Your task to perform on an android device: What's the weather today? Image 0: 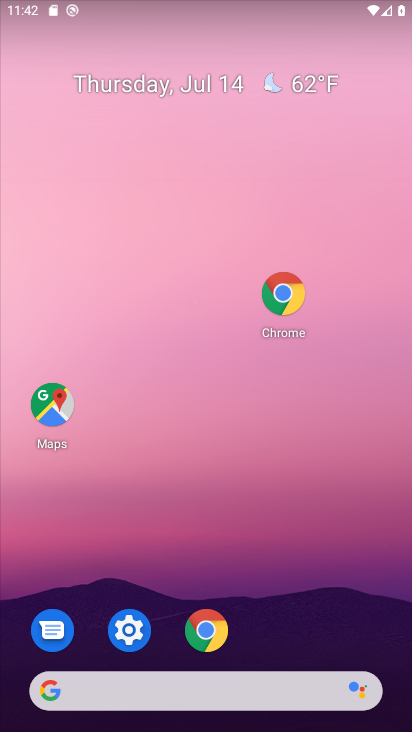
Step 0: drag from (269, 573) to (230, 142)
Your task to perform on an android device: What's the weather today? Image 1: 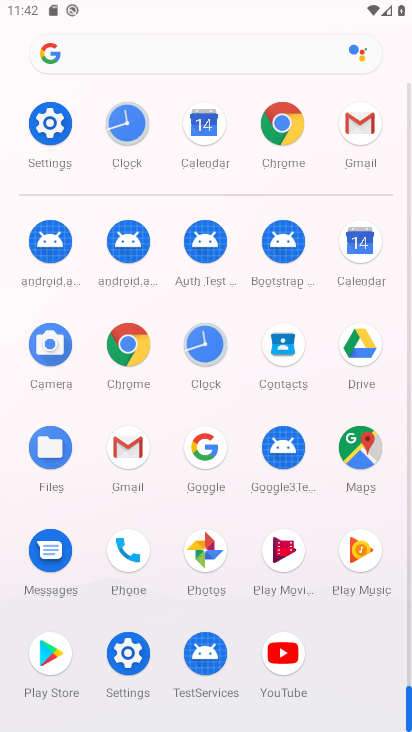
Step 1: click (282, 127)
Your task to perform on an android device: What's the weather today? Image 2: 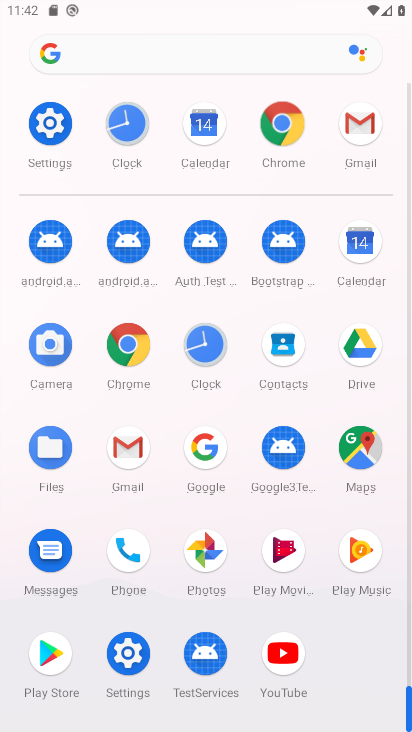
Step 2: click (281, 126)
Your task to perform on an android device: What's the weather today? Image 3: 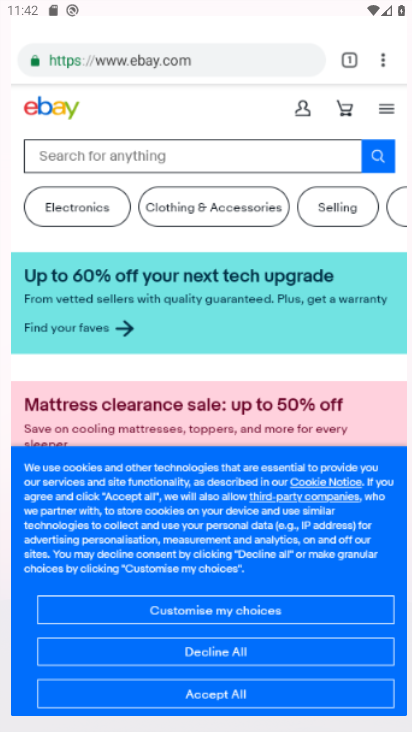
Step 3: click (282, 124)
Your task to perform on an android device: What's the weather today? Image 4: 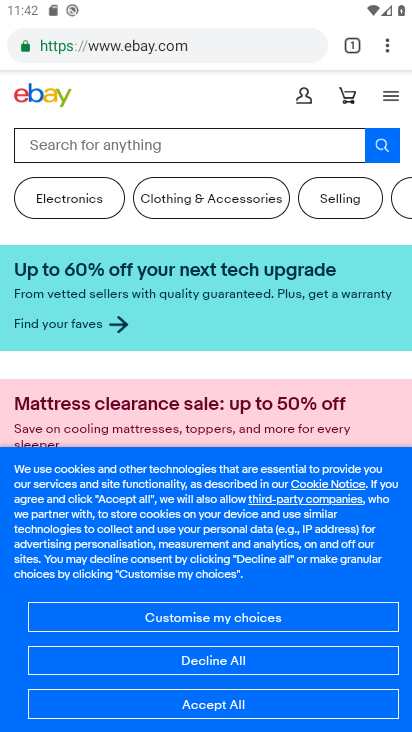
Step 4: drag from (391, 32) to (230, 158)
Your task to perform on an android device: What's the weather today? Image 5: 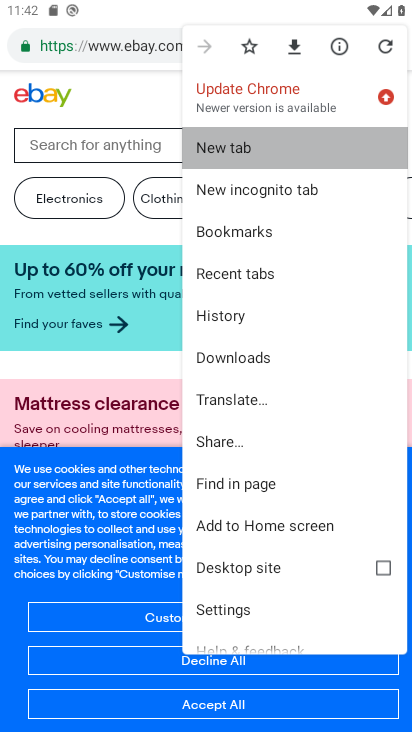
Step 5: click (223, 153)
Your task to perform on an android device: What's the weather today? Image 6: 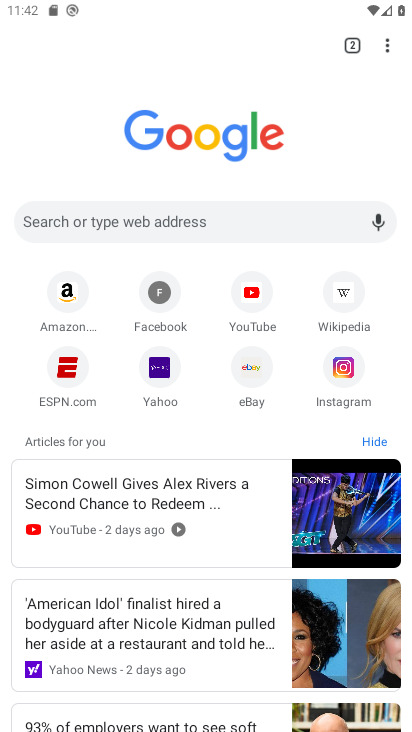
Step 6: click (44, 224)
Your task to perform on an android device: What's the weather today? Image 7: 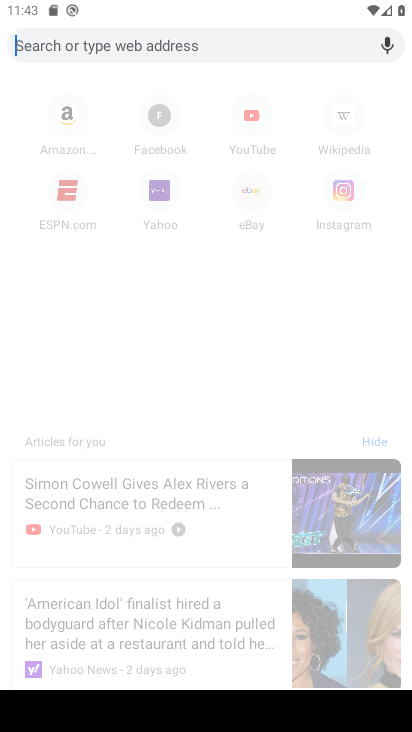
Step 7: type "weather today?"
Your task to perform on an android device: What's the weather today? Image 8: 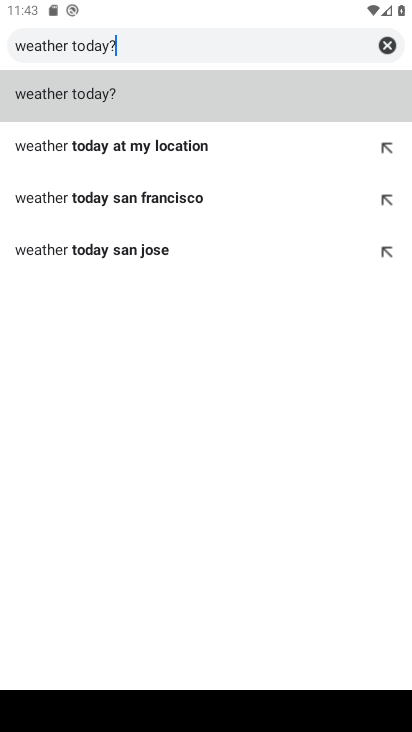
Step 8: click (79, 95)
Your task to perform on an android device: What's the weather today? Image 9: 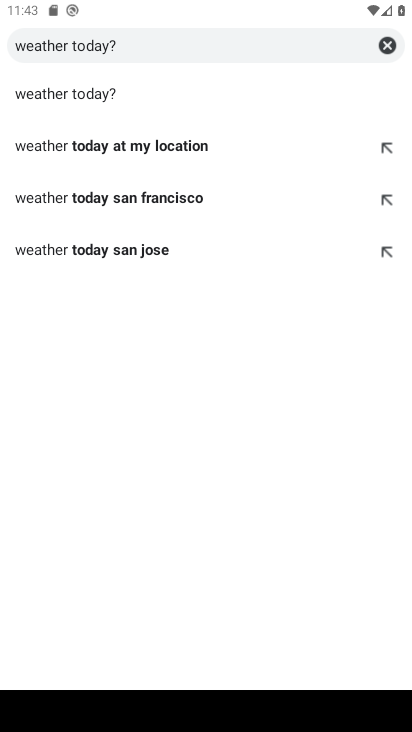
Step 9: click (79, 94)
Your task to perform on an android device: What's the weather today? Image 10: 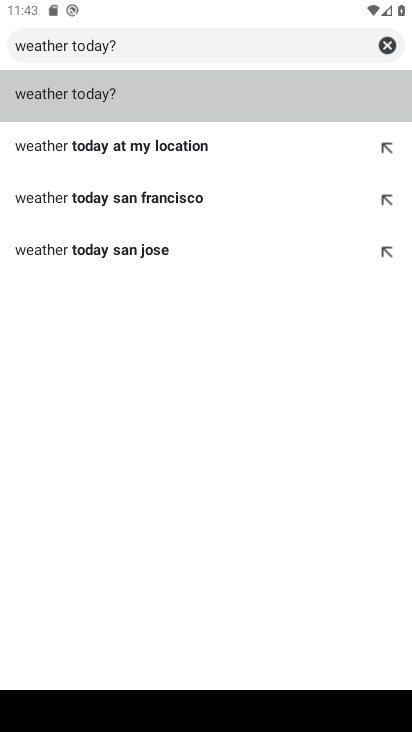
Step 10: click (79, 94)
Your task to perform on an android device: What's the weather today? Image 11: 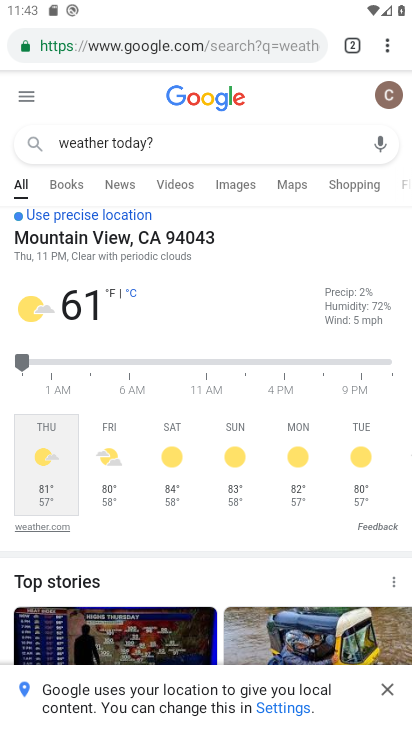
Step 11: task complete